Your task to perform on an android device: Open Amazon Image 0: 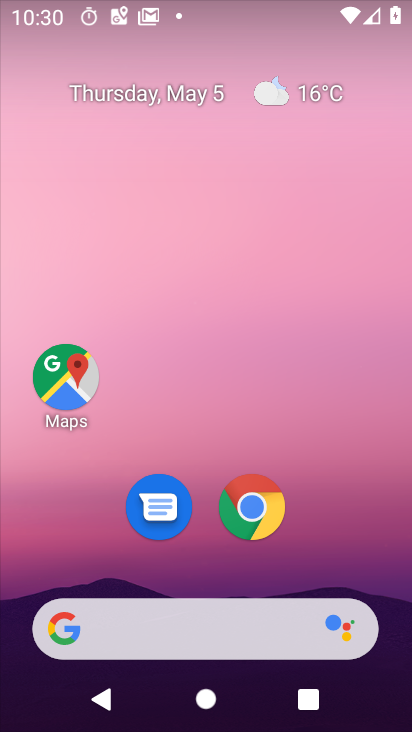
Step 0: drag from (179, 506) to (193, 90)
Your task to perform on an android device: Open Amazon Image 1: 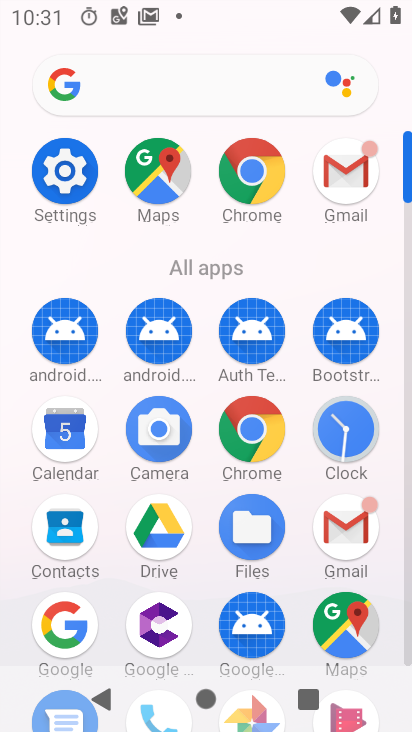
Step 1: click (253, 173)
Your task to perform on an android device: Open Amazon Image 2: 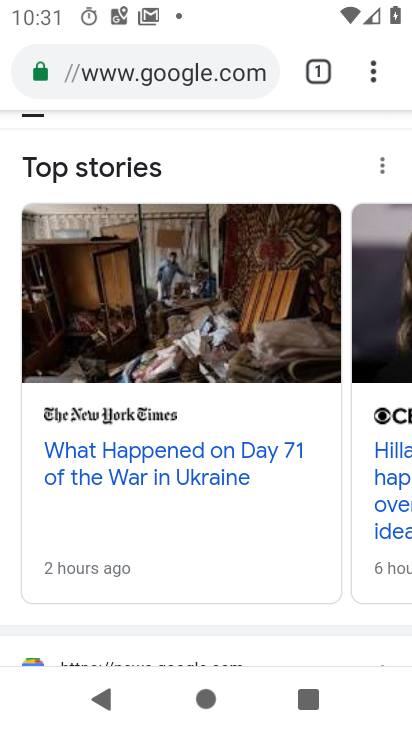
Step 2: click (183, 75)
Your task to perform on an android device: Open Amazon Image 3: 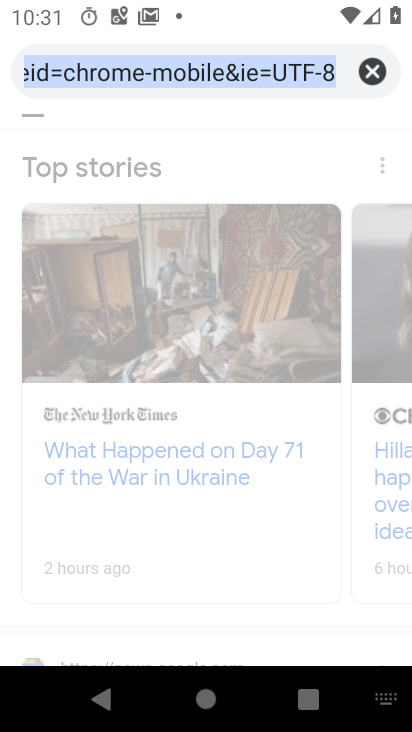
Step 3: type "Amazon"
Your task to perform on an android device: Open Amazon Image 4: 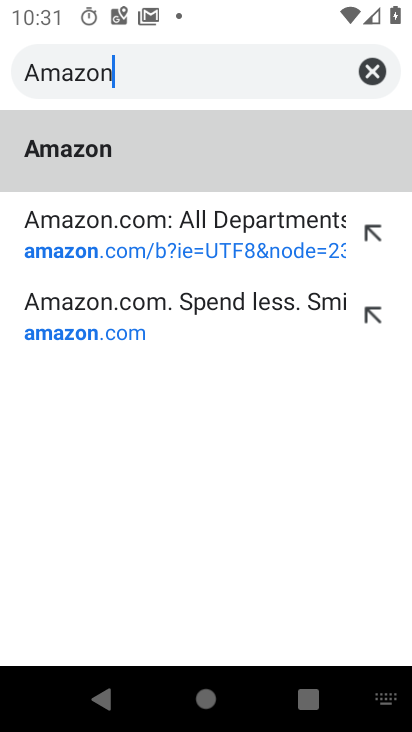
Step 4: click (235, 149)
Your task to perform on an android device: Open Amazon Image 5: 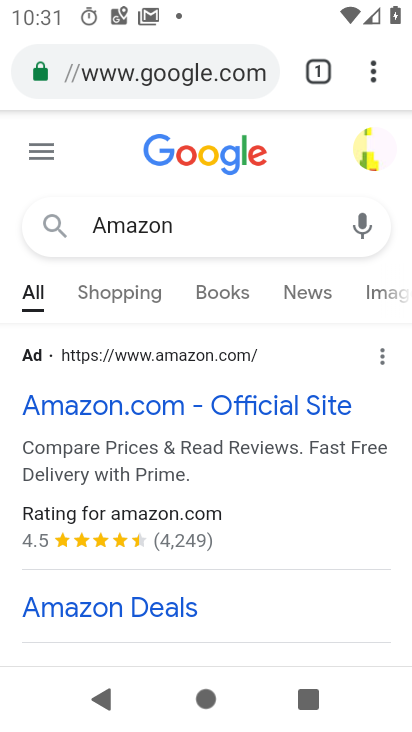
Step 5: task complete